Your task to perform on an android device: change the clock display to digital Image 0: 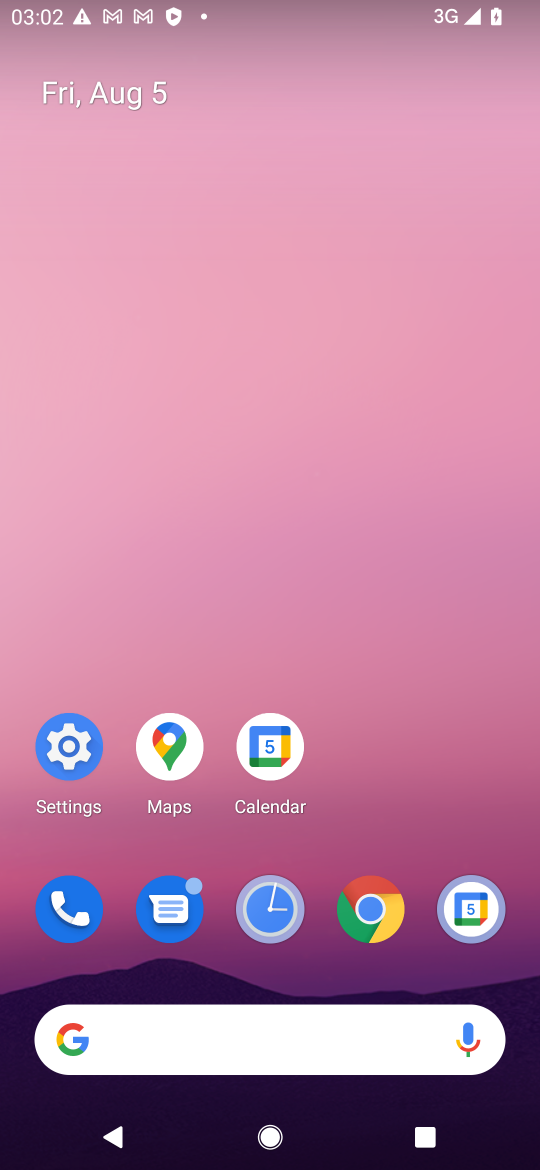
Step 0: click (275, 907)
Your task to perform on an android device: change the clock display to digital Image 1: 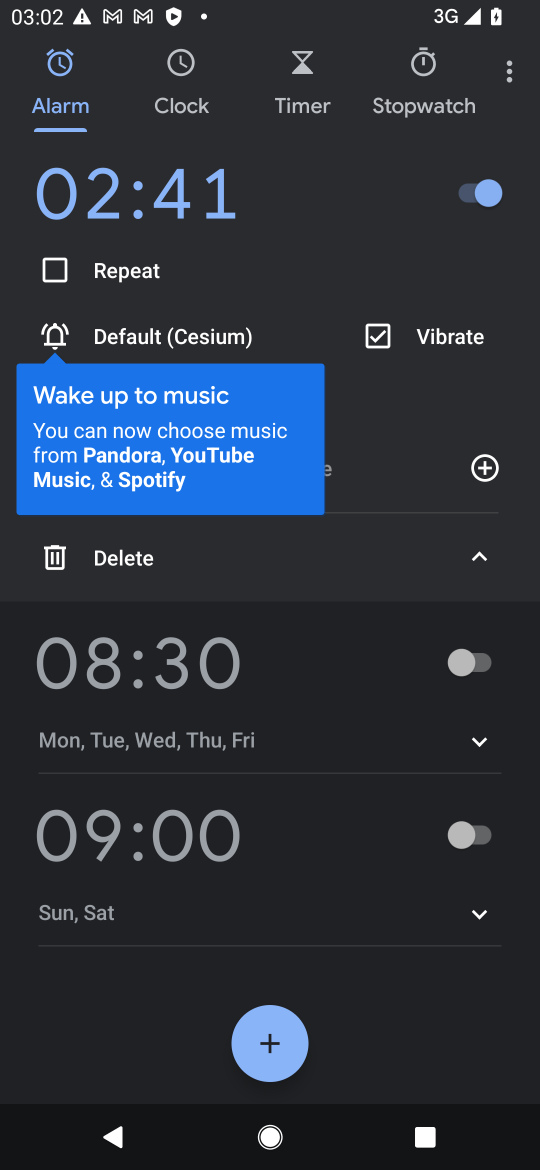
Step 1: click (506, 74)
Your task to perform on an android device: change the clock display to digital Image 2: 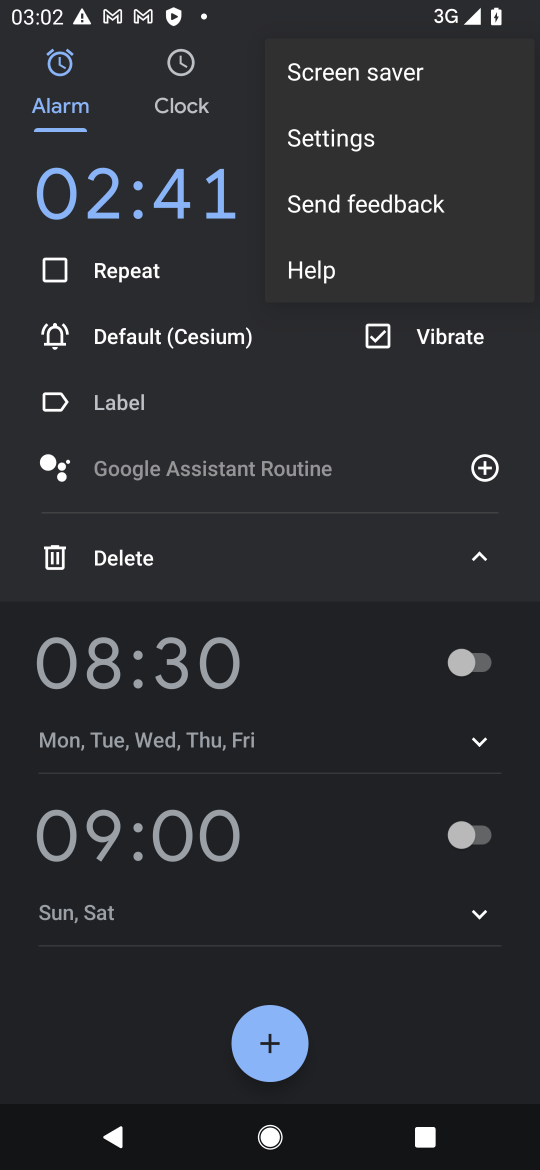
Step 2: click (342, 139)
Your task to perform on an android device: change the clock display to digital Image 3: 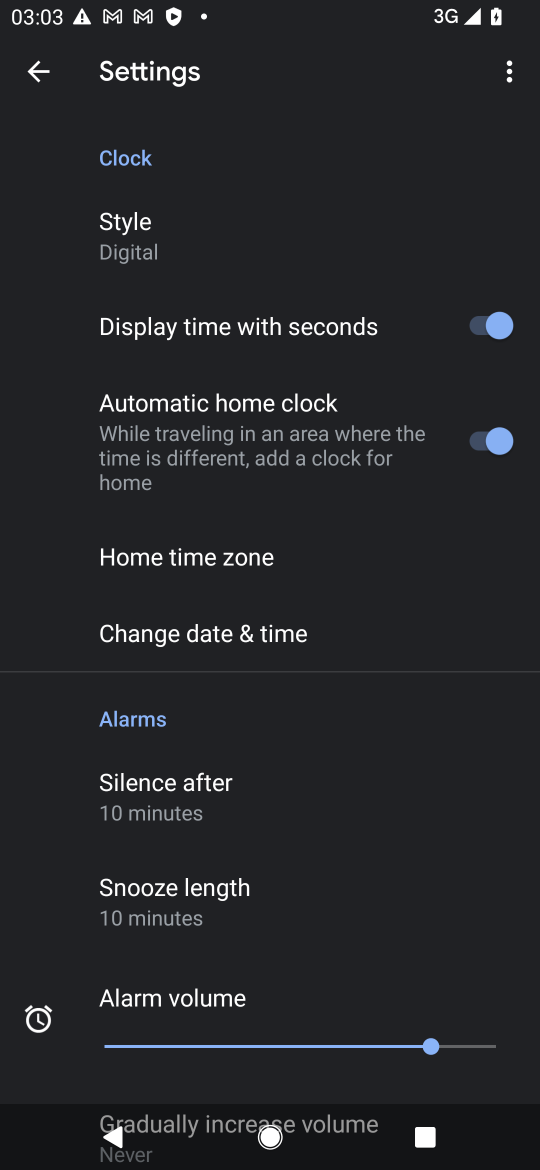
Step 3: click (138, 220)
Your task to perform on an android device: change the clock display to digital Image 4: 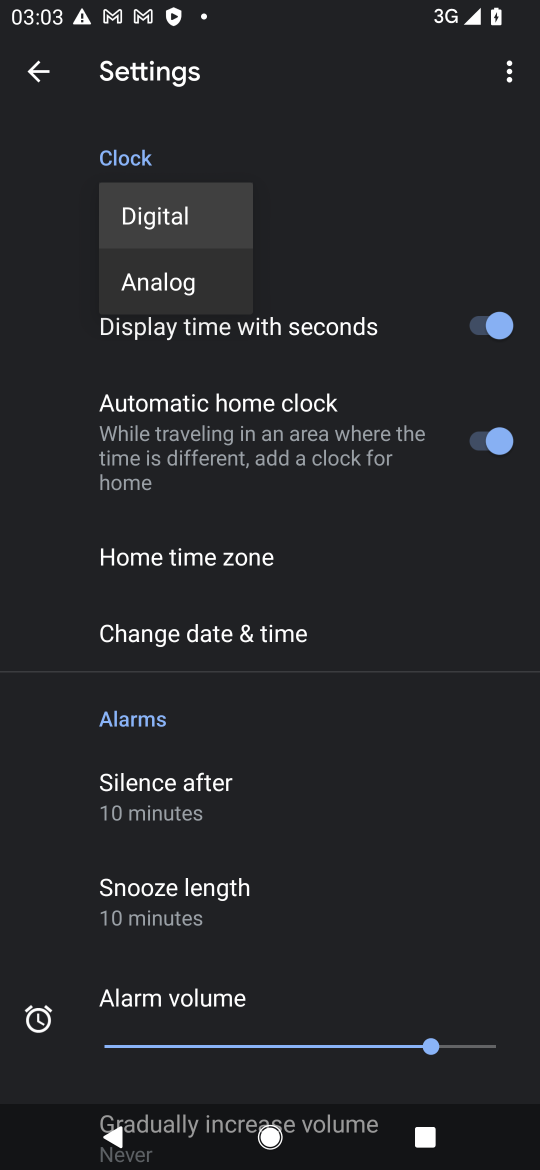
Step 4: click (149, 208)
Your task to perform on an android device: change the clock display to digital Image 5: 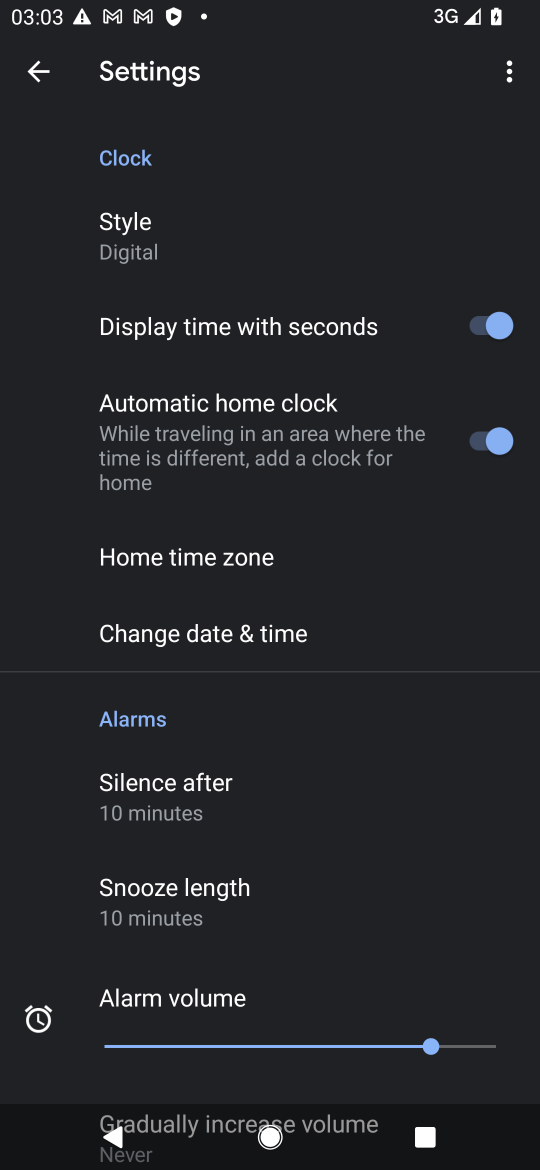
Step 5: task complete